Your task to perform on an android device: Open ESPN.com Image 0: 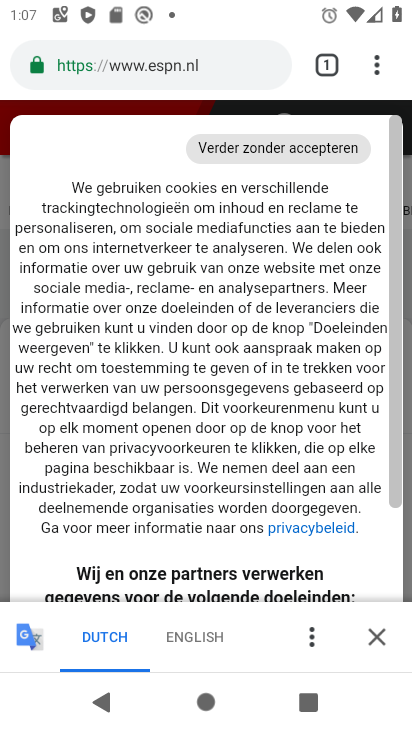
Step 0: press home button
Your task to perform on an android device: Open ESPN.com Image 1: 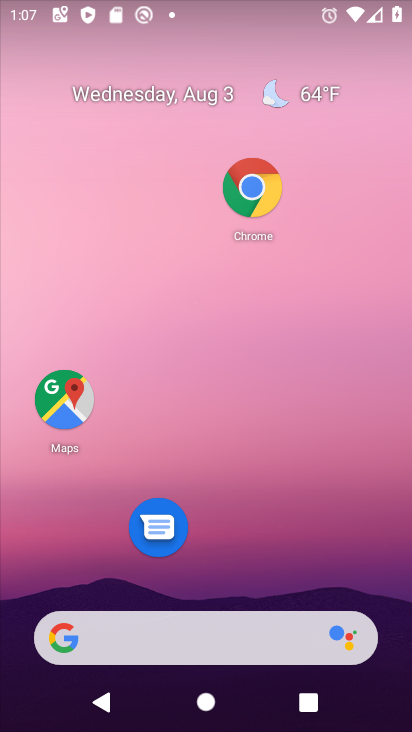
Step 1: click (261, 203)
Your task to perform on an android device: Open ESPN.com Image 2: 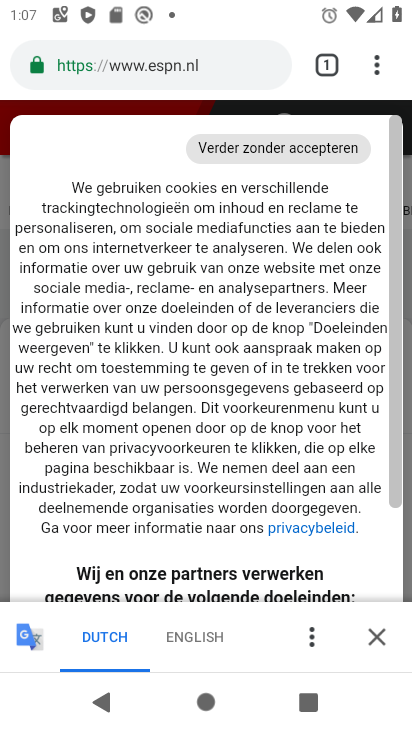
Step 2: drag from (232, 439) to (250, 241)
Your task to perform on an android device: Open ESPN.com Image 3: 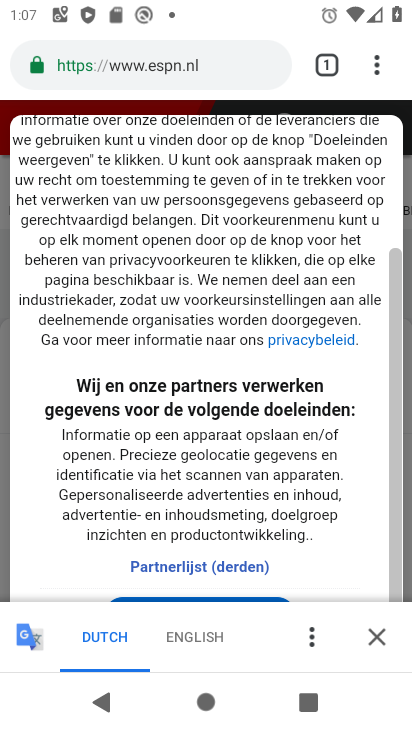
Step 3: click (198, 67)
Your task to perform on an android device: Open ESPN.com Image 4: 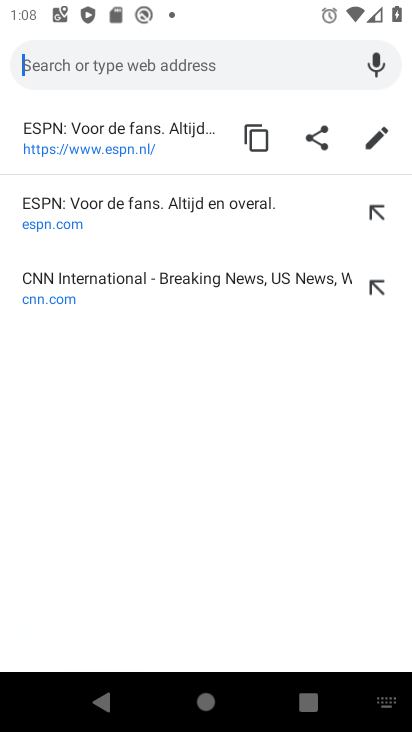
Step 4: type "ESPN.com"
Your task to perform on an android device: Open ESPN.com Image 5: 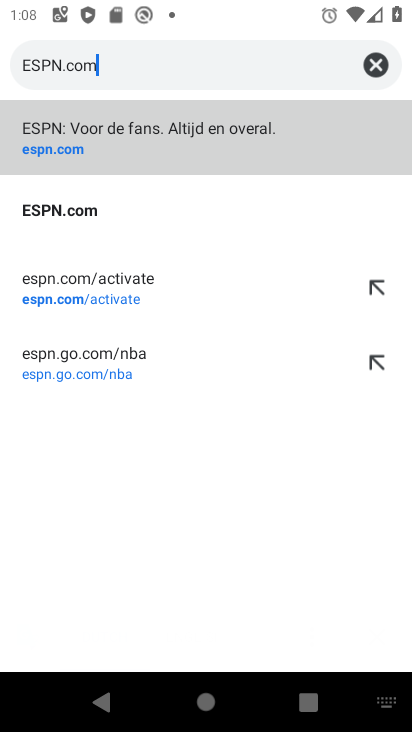
Step 5: click (59, 227)
Your task to perform on an android device: Open ESPN.com Image 6: 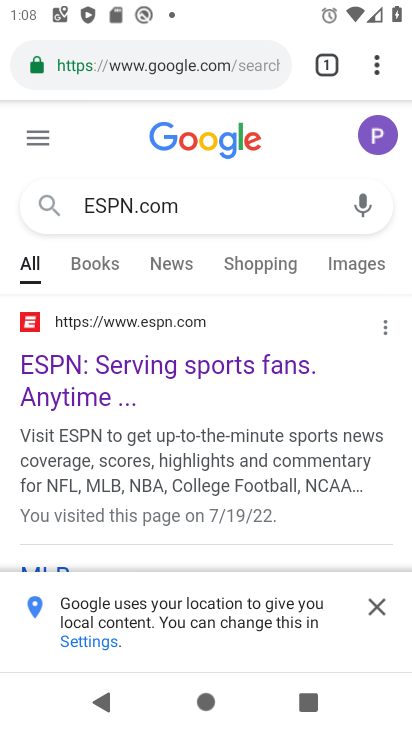
Step 6: click (375, 603)
Your task to perform on an android device: Open ESPN.com Image 7: 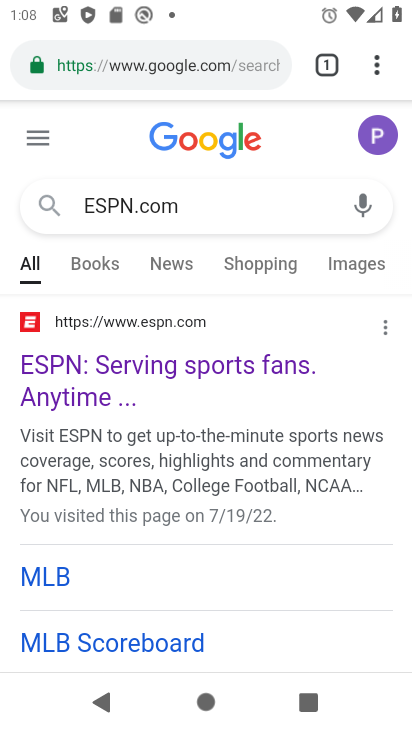
Step 7: task complete